Your task to perform on an android device: open sync settings in chrome Image 0: 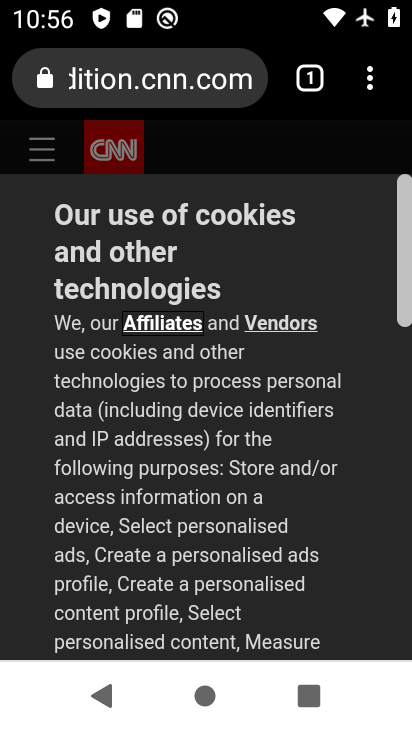
Step 0: click (368, 77)
Your task to perform on an android device: open sync settings in chrome Image 1: 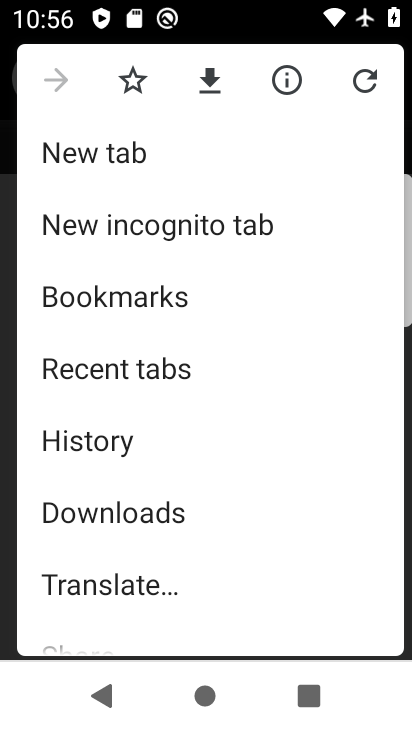
Step 1: drag from (180, 553) to (225, 256)
Your task to perform on an android device: open sync settings in chrome Image 2: 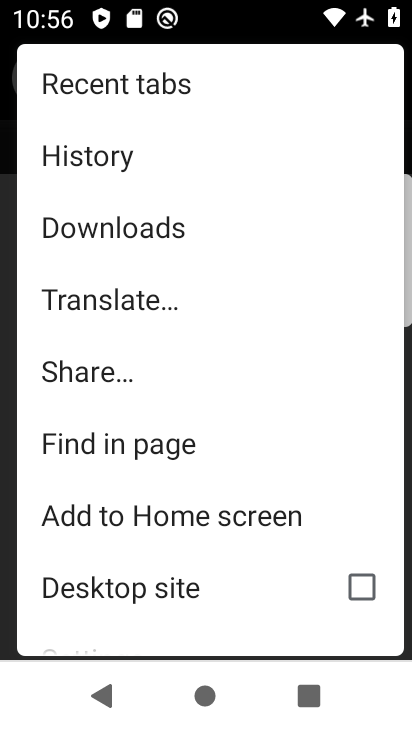
Step 2: drag from (167, 579) to (190, 441)
Your task to perform on an android device: open sync settings in chrome Image 3: 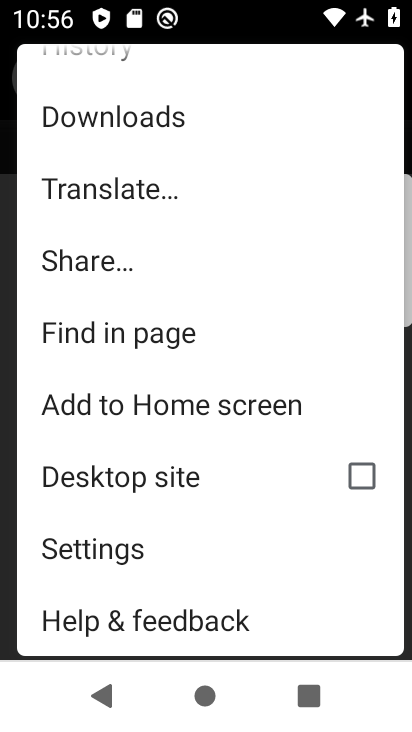
Step 3: click (167, 552)
Your task to perform on an android device: open sync settings in chrome Image 4: 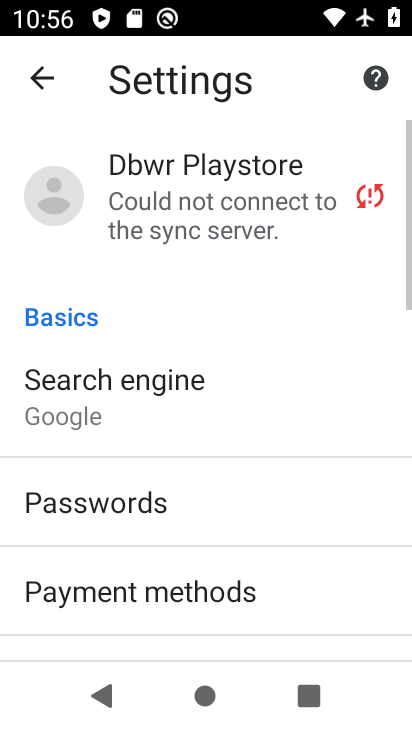
Step 4: click (159, 201)
Your task to perform on an android device: open sync settings in chrome Image 5: 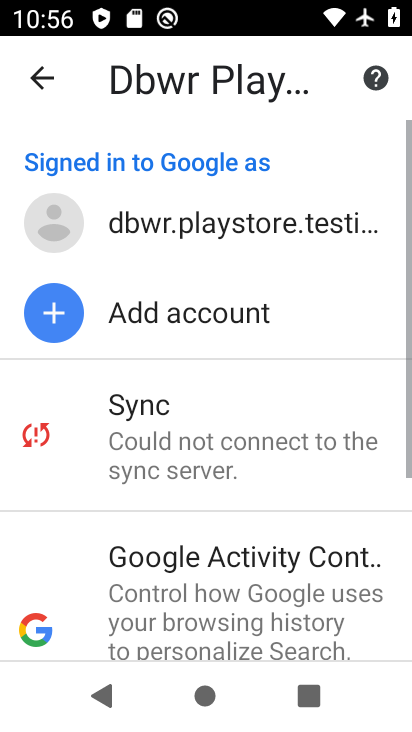
Step 5: task complete